Your task to perform on an android device: turn pop-ups on in chrome Image 0: 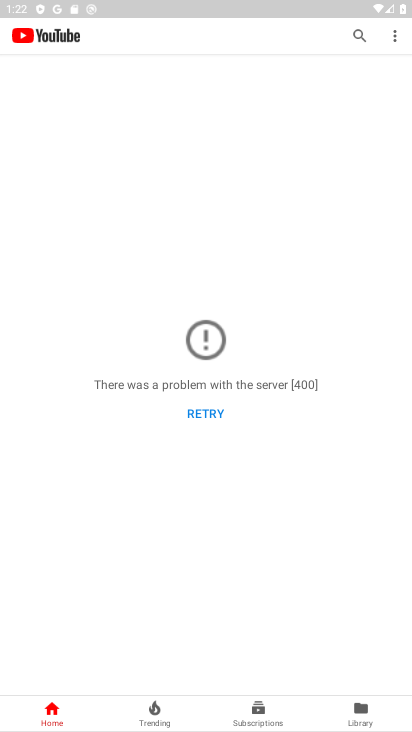
Step 0: click (383, 253)
Your task to perform on an android device: turn pop-ups on in chrome Image 1: 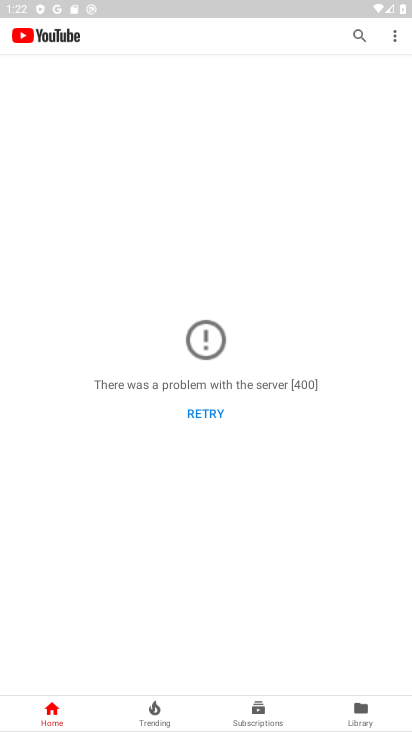
Step 1: press home button
Your task to perform on an android device: turn pop-ups on in chrome Image 2: 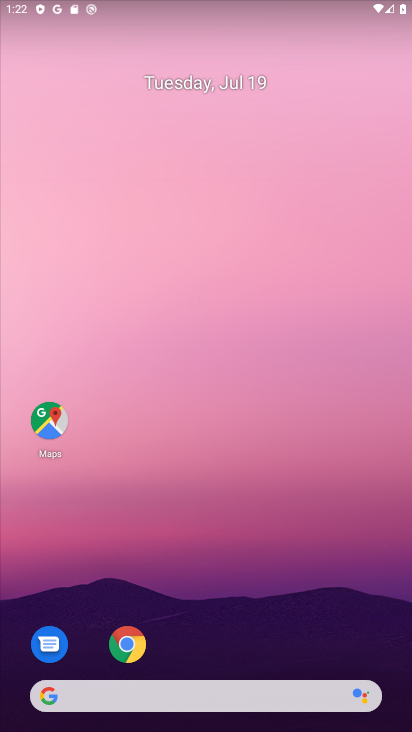
Step 2: click (120, 645)
Your task to perform on an android device: turn pop-ups on in chrome Image 3: 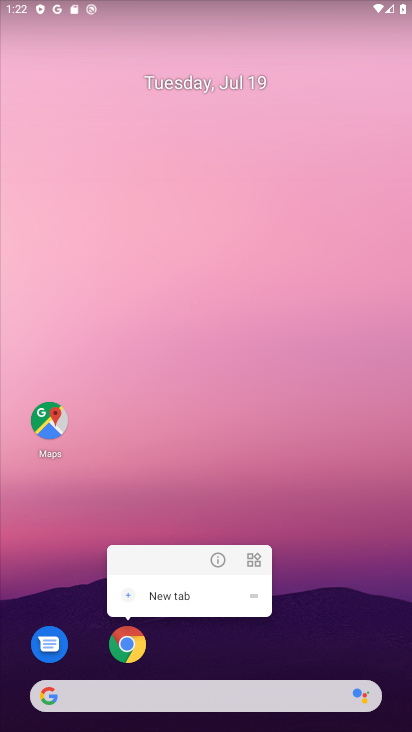
Step 3: click (150, 649)
Your task to perform on an android device: turn pop-ups on in chrome Image 4: 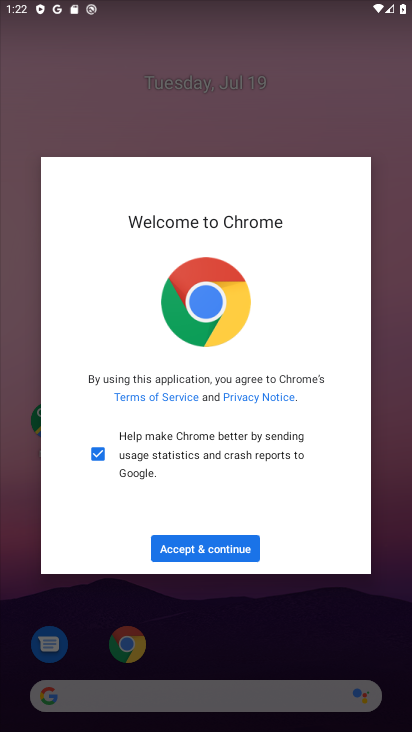
Step 4: click (243, 564)
Your task to perform on an android device: turn pop-ups on in chrome Image 5: 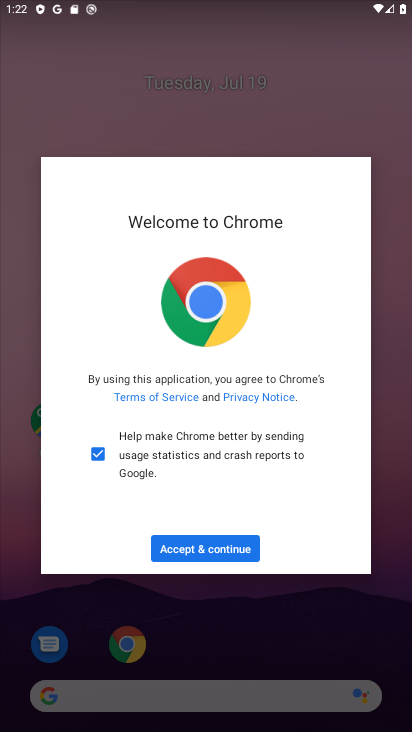
Step 5: click (244, 550)
Your task to perform on an android device: turn pop-ups on in chrome Image 6: 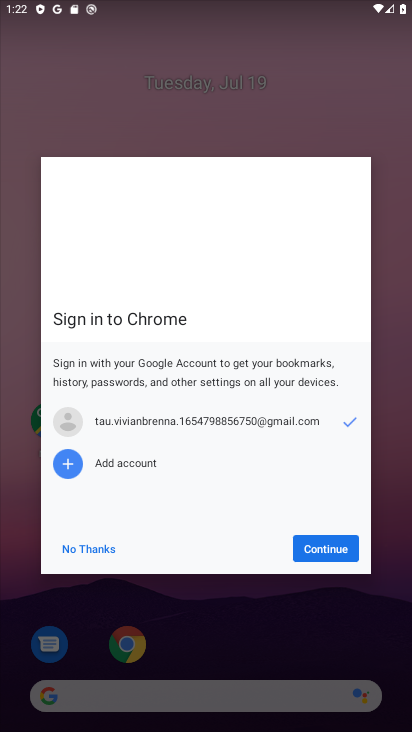
Step 6: click (313, 547)
Your task to perform on an android device: turn pop-ups on in chrome Image 7: 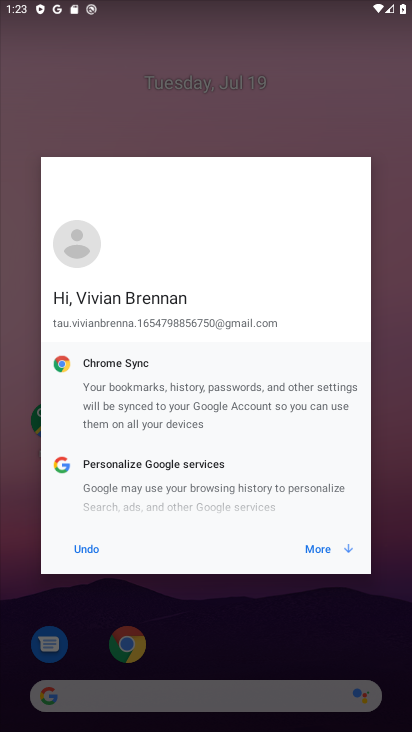
Step 7: click (313, 547)
Your task to perform on an android device: turn pop-ups on in chrome Image 8: 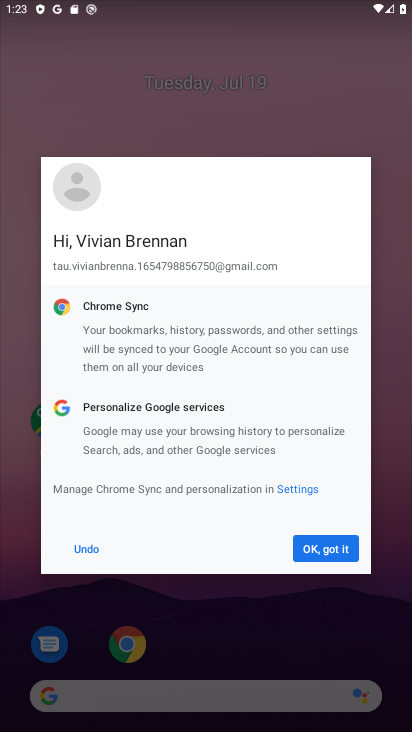
Step 8: click (313, 547)
Your task to perform on an android device: turn pop-ups on in chrome Image 9: 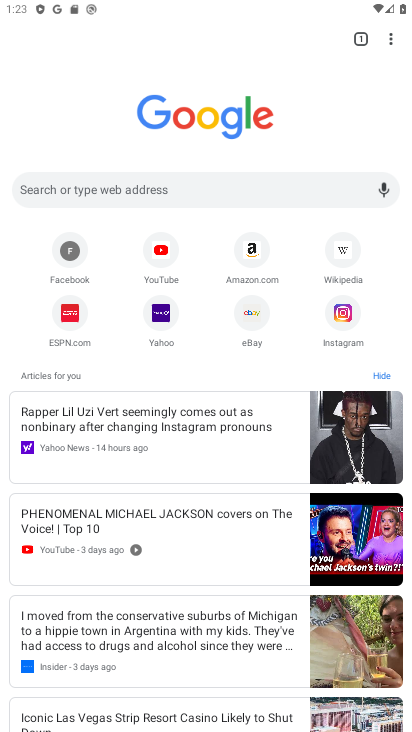
Step 9: drag from (393, 41) to (300, 321)
Your task to perform on an android device: turn pop-ups on in chrome Image 10: 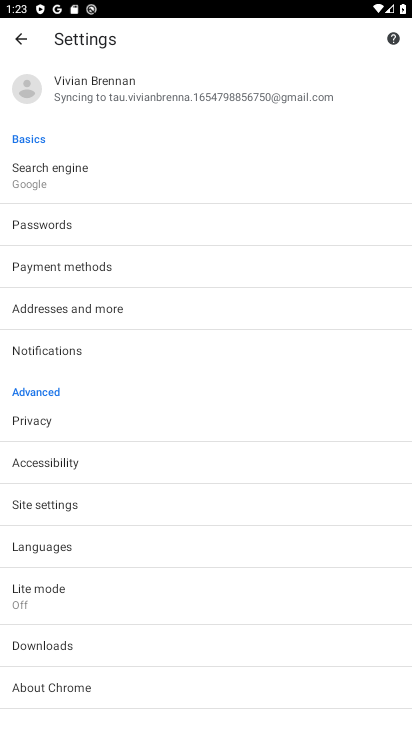
Step 10: click (103, 510)
Your task to perform on an android device: turn pop-ups on in chrome Image 11: 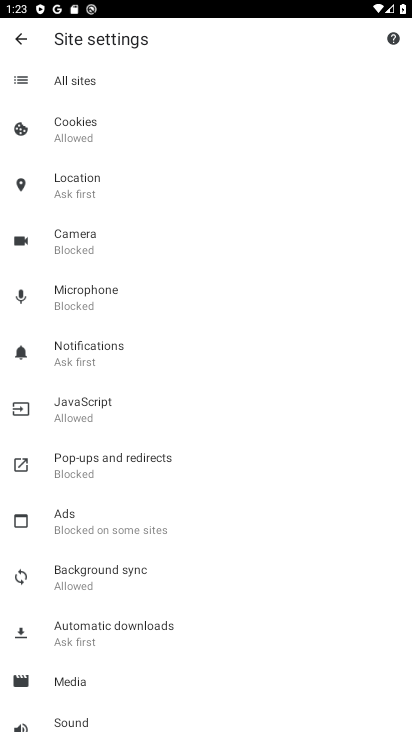
Step 11: click (152, 457)
Your task to perform on an android device: turn pop-ups on in chrome Image 12: 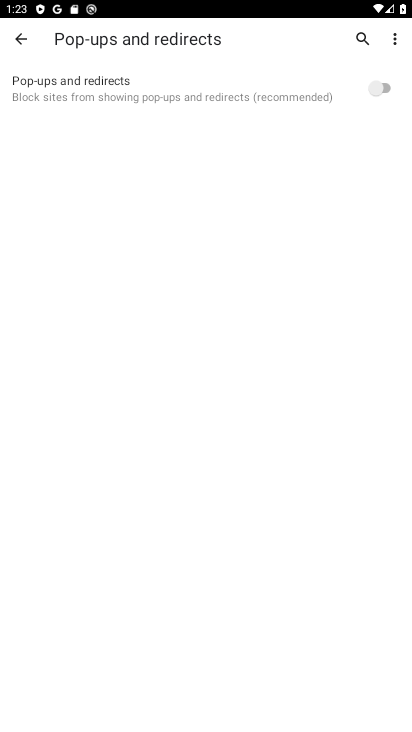
Step 12: click (390, 92)
Your task to perform on an android device: turn pop-ups on in chrome Image 13: 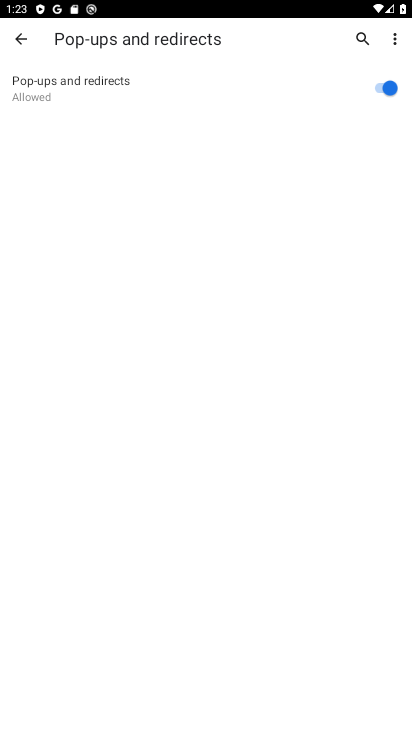
Step 13: task complete